Your task to perform on an android device: change the clock display to show seconds Image 0: 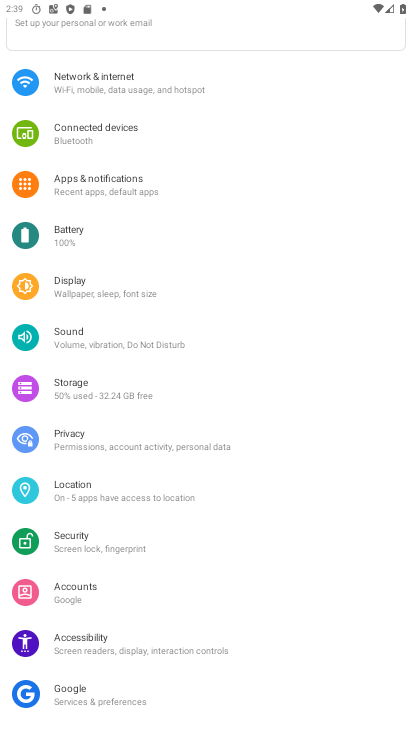
Step 0: press home button
Your task to perform on an android device: change the clock display to show seconds Image 1: 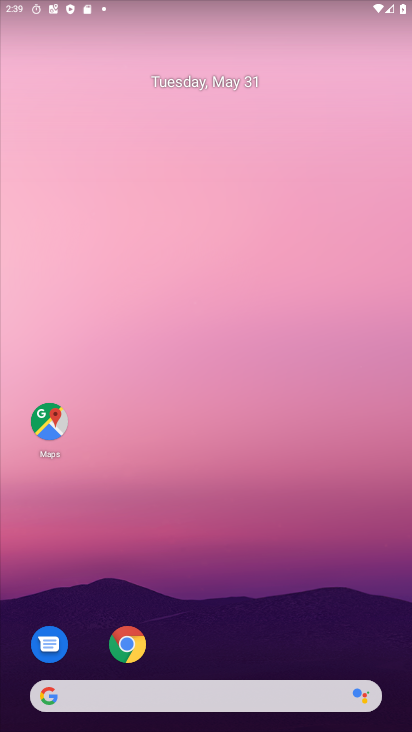
Step 1: drag from (398, 675) to (301, 145)
Your task to perform on an android device: change the clock display to show seconds Image 2: 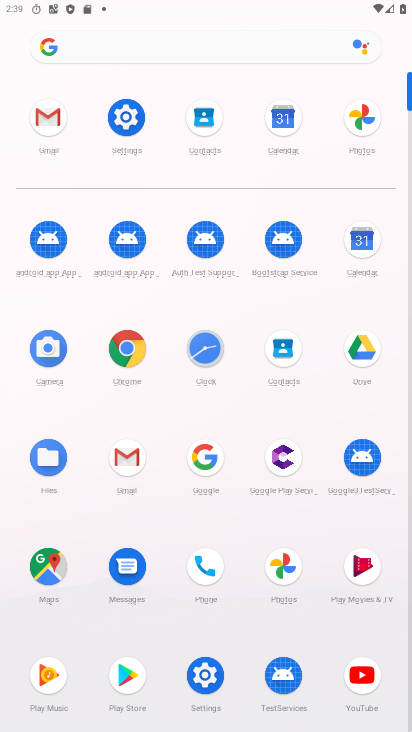
Step 2: click (193, 353)
Your task to perform on an android device: change the clock display to show seconds Image 3: 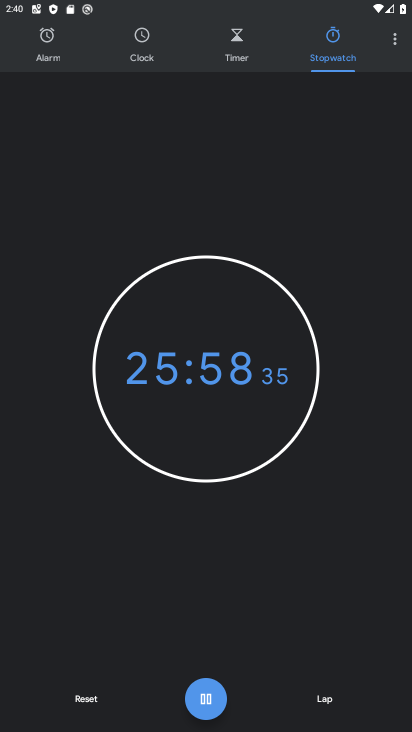
Step 3: click (392, 39)
Your task to perform on an android device: change the clock display to show seconds Image 4: 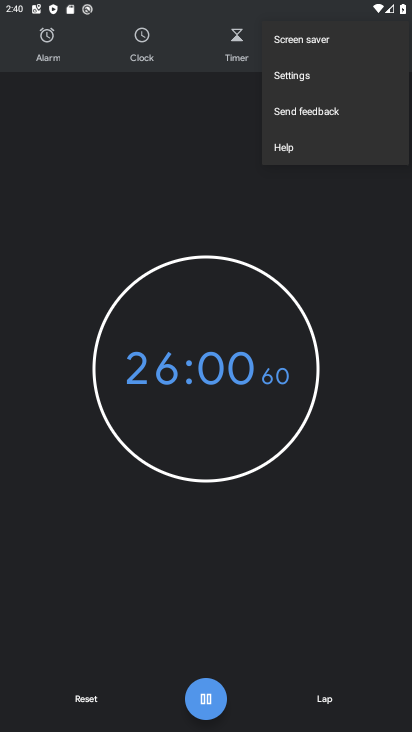
Step 4: click (308, 81)
Your task to perform on an android device: change the clock display to show seconds Image 5: 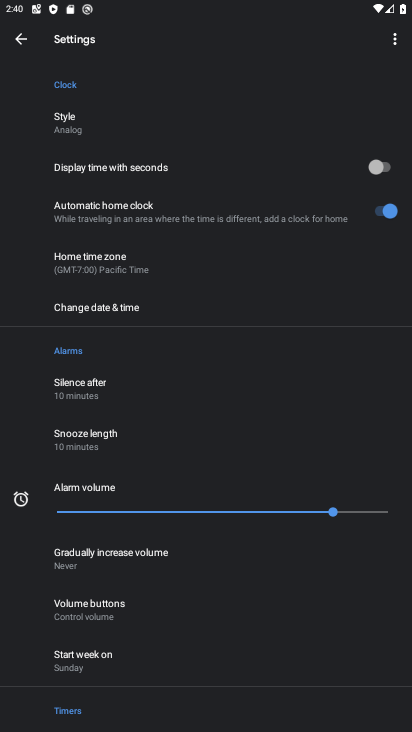
Step 5: click (387, 166)
Your task to perform on an android device: change the clock display to show seconds Image 6: 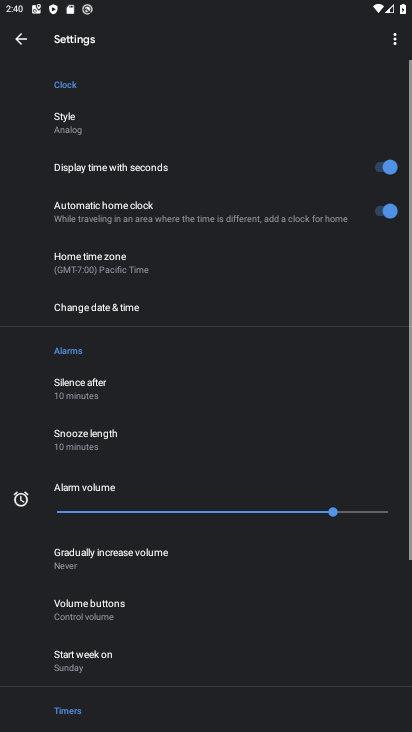
Step 6: task complete